Your task to perform on an android device: turn on priority inbox in the gmail app Image 0: 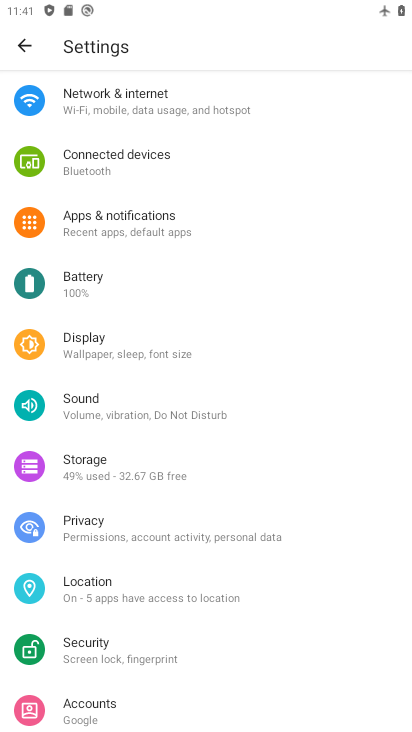
Step 0: press home button
Your task to perform on an android device: turn on priority inbox in the gmail app Image 1: 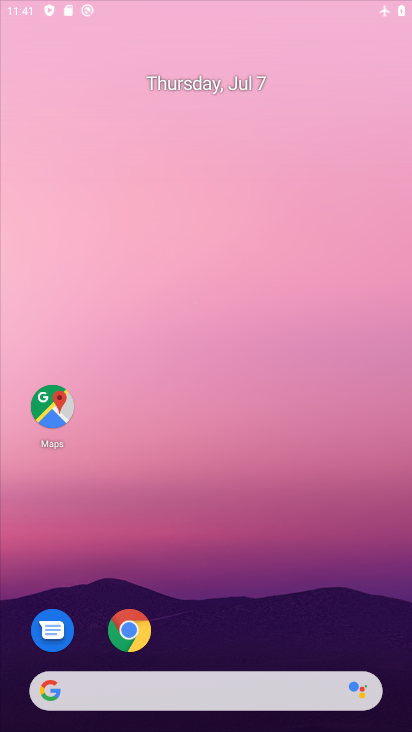
Step 1: drag from (339, 712) to (225, 100)
Your task to perform on an android device: turn on priority inbox in the gmail app Image 2: 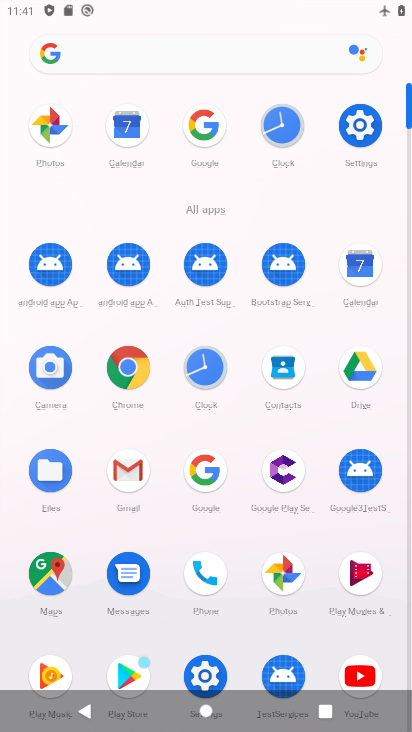
Step 2: click (138, 461)
Your task to perform on an android device: turn on priority inbox in the gmail app Image 3: 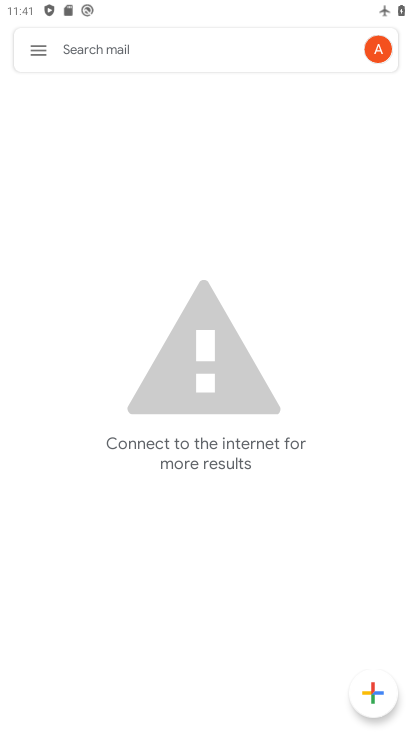
Step 3: click (30, 41)
Your task to perform on an android device: turn on priority inbox in the gmail app Image 4: 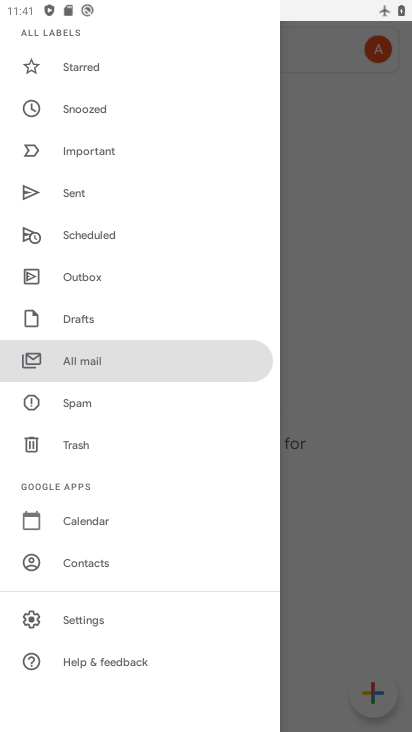
Step 4: click (89, 625)
Your task to perform on an android device: turn on priority inbox in the gmail app Image 5: 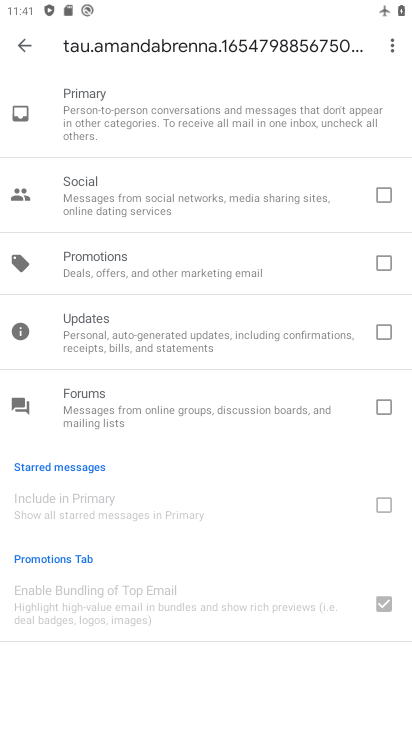
Step 5: press back button
Your task to perform on an android device: turn on priority inbox in the gmail app Image 6: 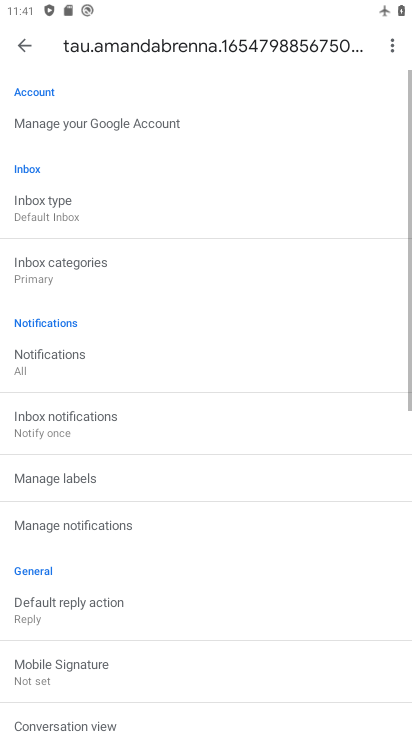
Step 6: click (101, 203)
Your task to perform on an android device: turn on priority inbox in the gmail app Image 7: 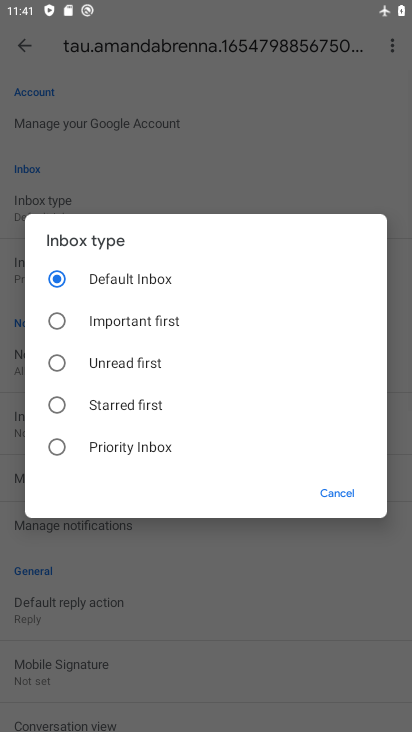
Step 7: click (59, 447)
Your task to perform on an android device: turn on priority inbox in the gmail app Image 8: 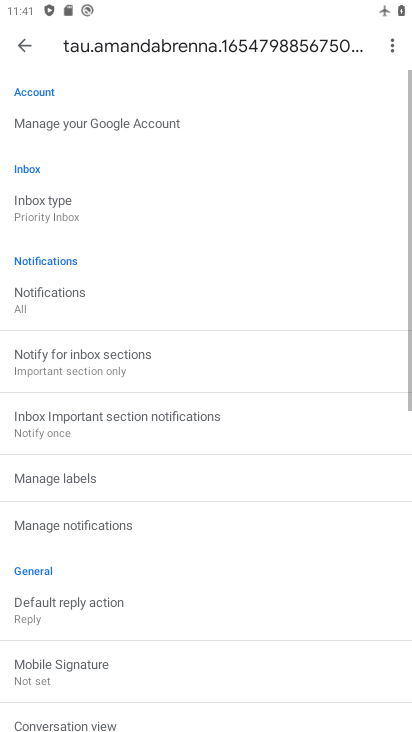
Step 8: task complete